Your task to perform on an android device: stop showing notifications on the lock screen Image 0: 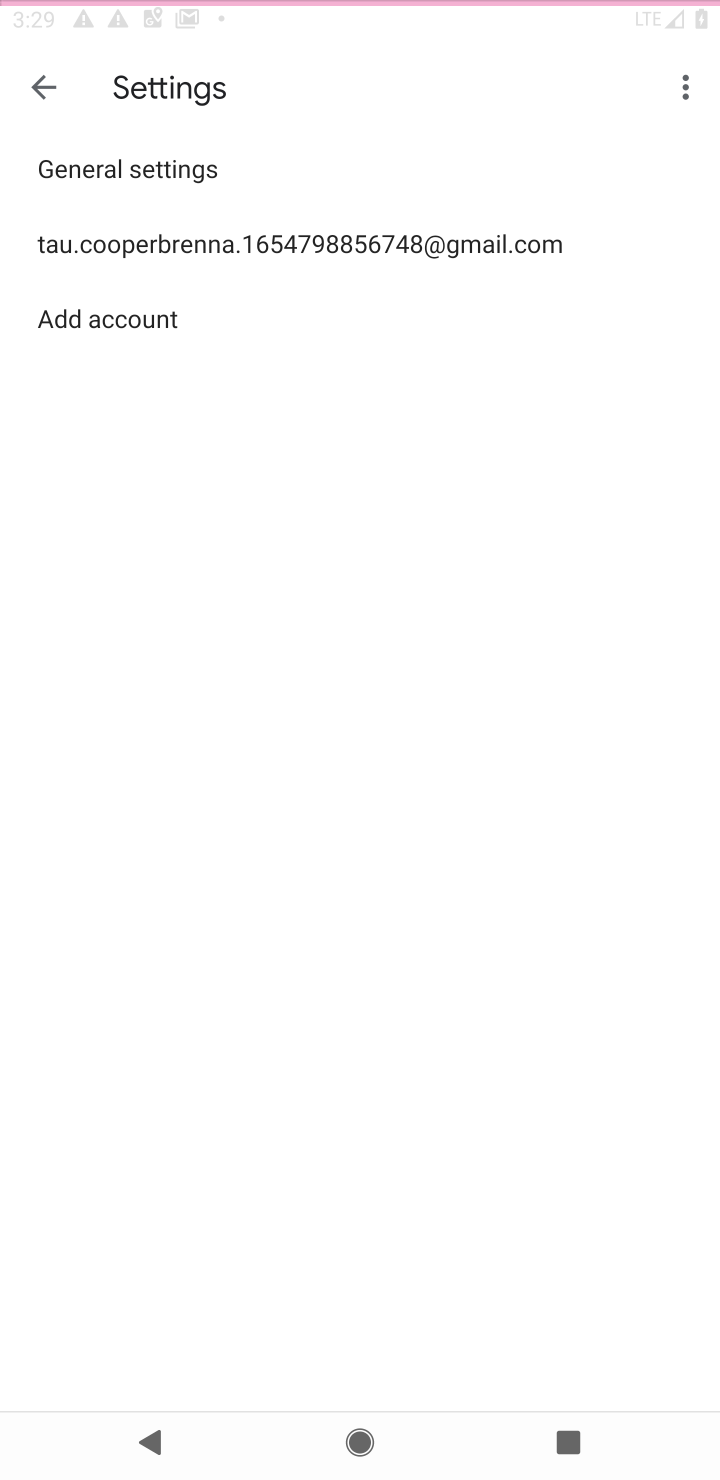
Step 0: press home button
Your task to perform on an android device: stop showing notifications on the lock screen Image 1: 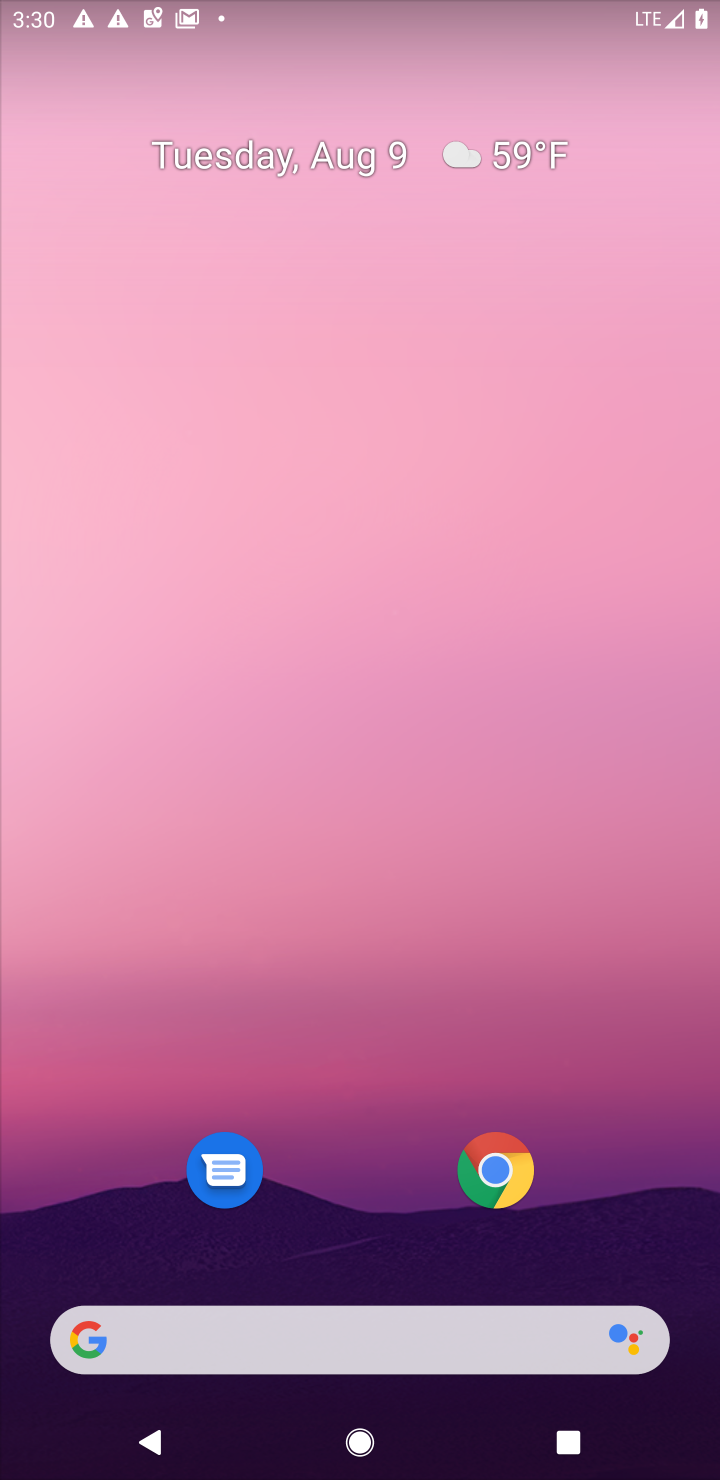
Step 1: drag from (334, 628) to (330, 64)
Your task to perform on an android device: stop showing notifications on the lock screen Image 2: 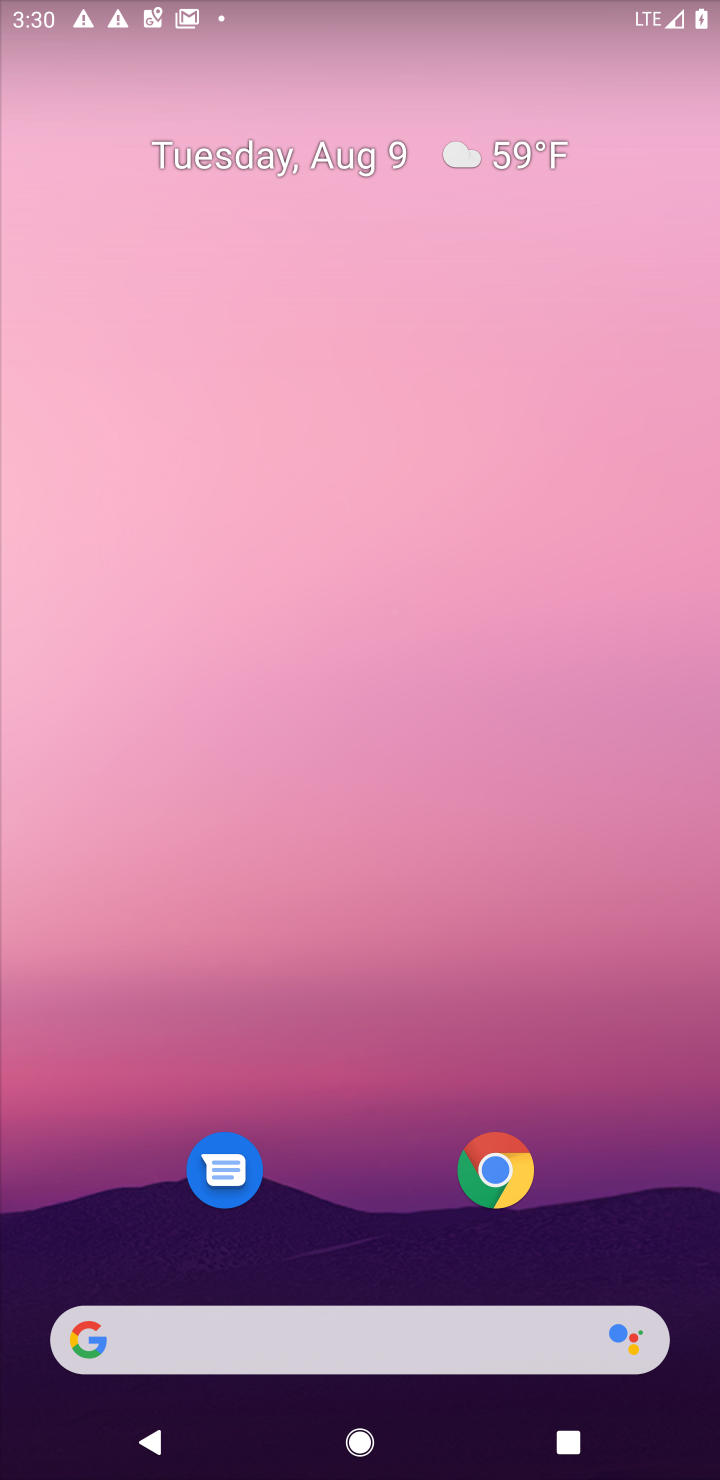
Step 2: drag from (385, 1250) to (327, 30)
Your task to perform on an android device: stop showing notifications on the lock screen Image 3: 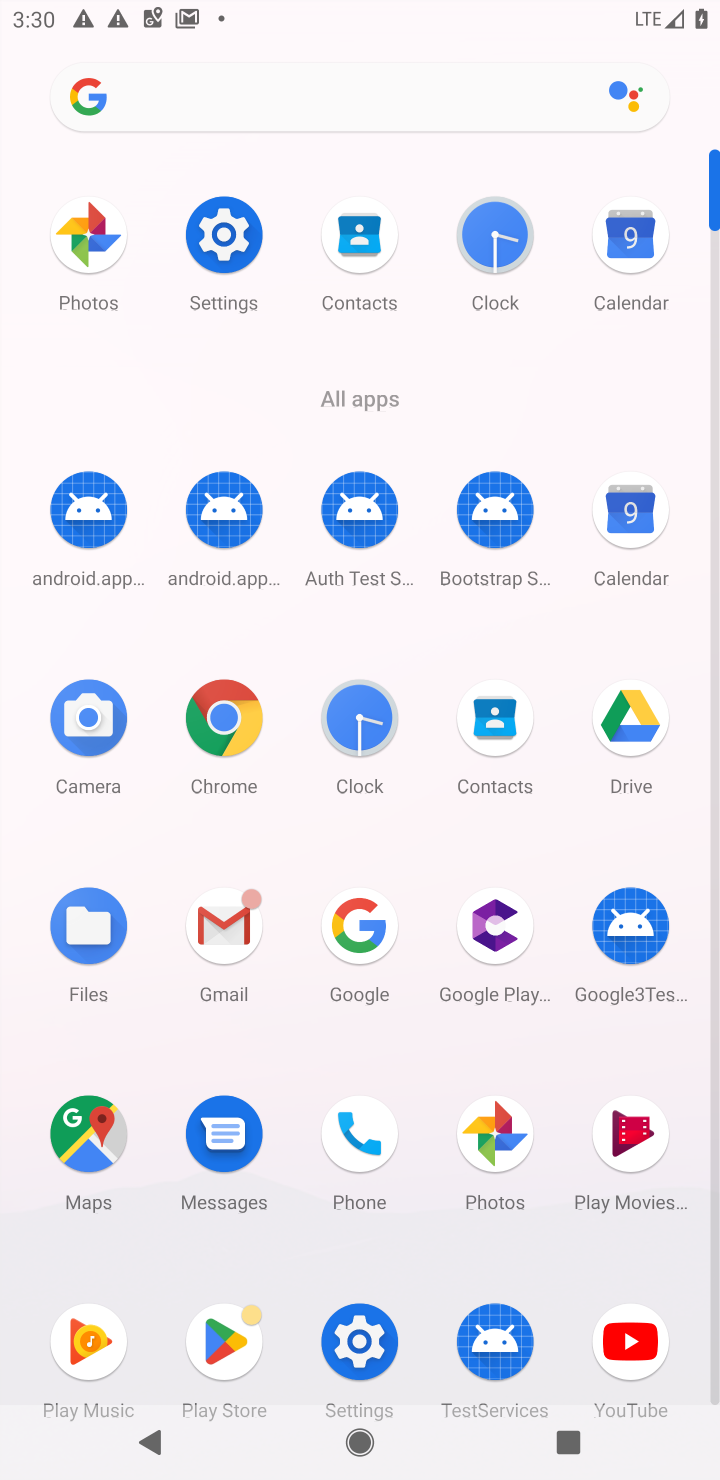
Step 3: click (224, 288)
Your task to perform on an android device: stop showing notifications on the lock screen Image 4: 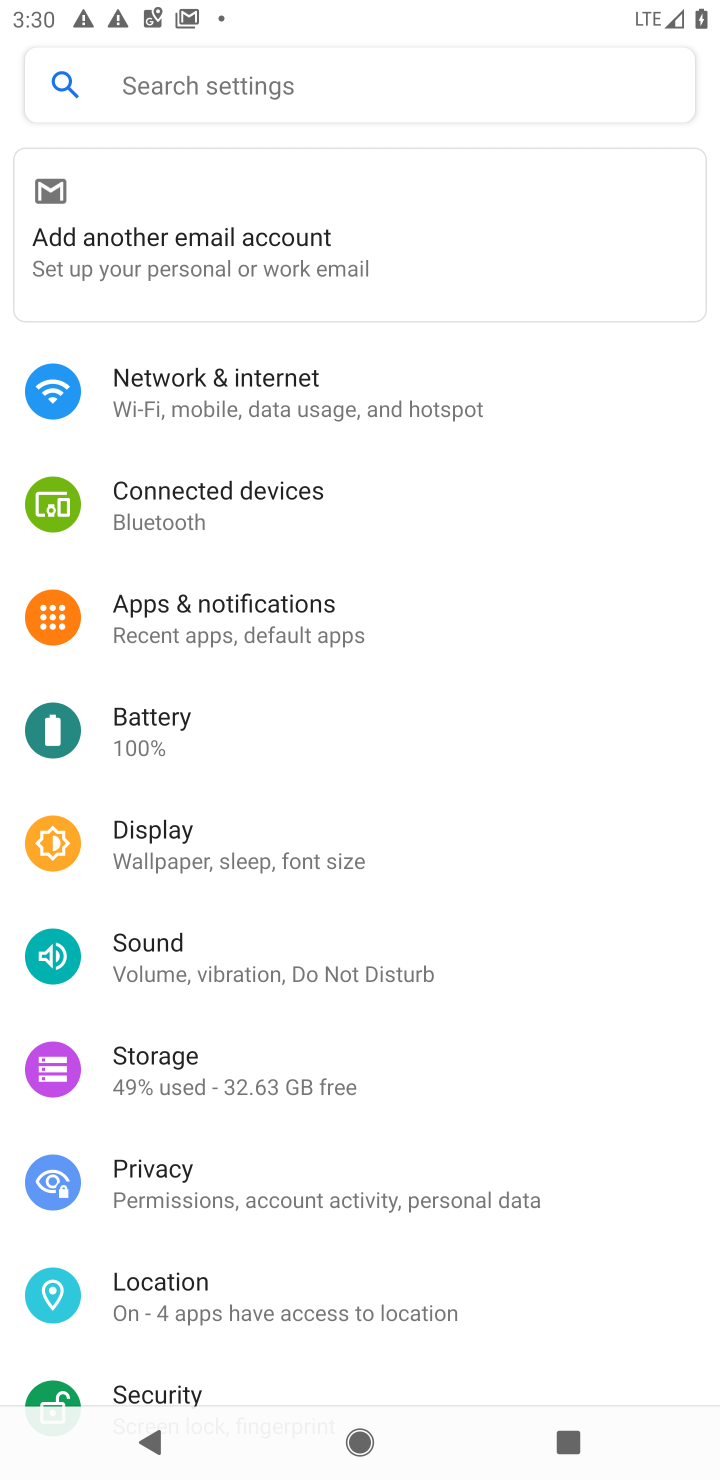
Step 4: click (229, 624)
Your task to perform on an android device: stop showing notifications on the lock screen Image 5: 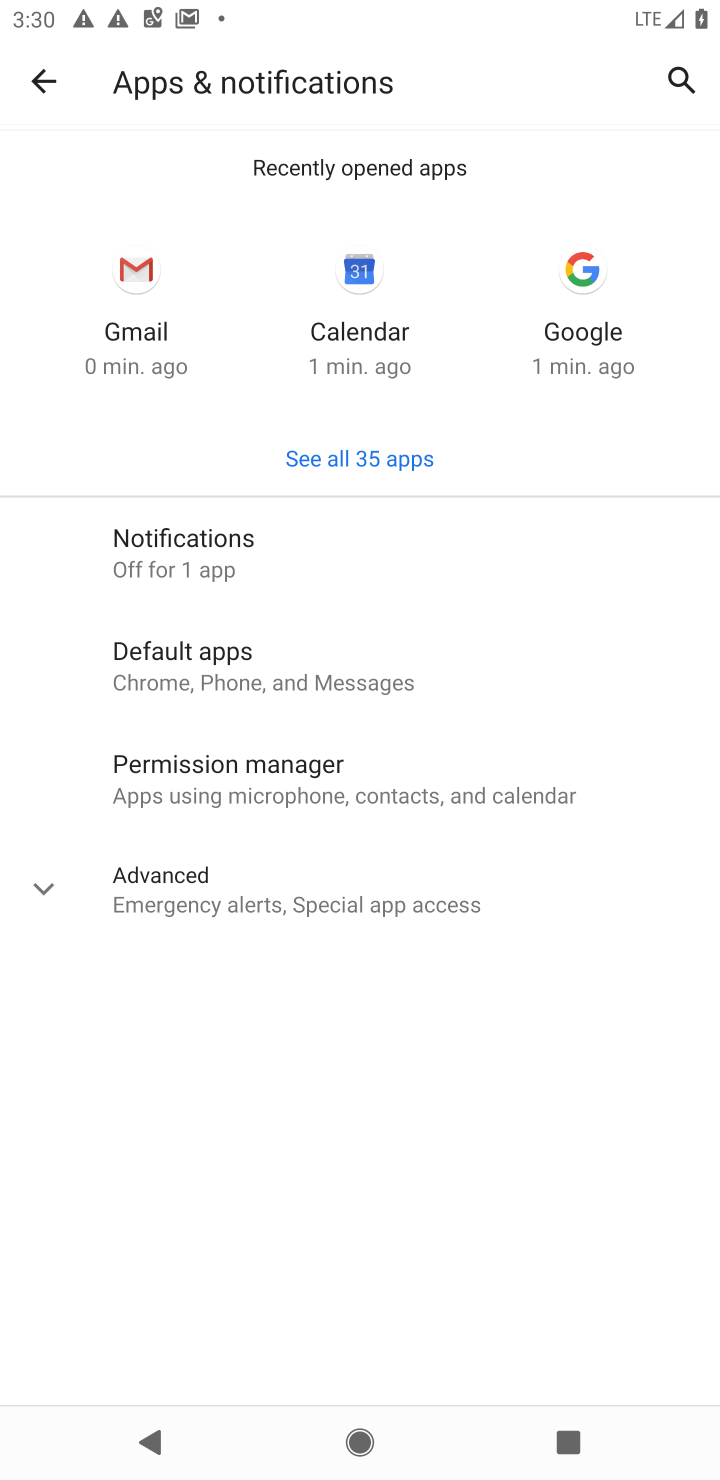
Step 5: click (167, 562)
Your task to perform on an android device: stop showing notifications on the lock screen Image 6: 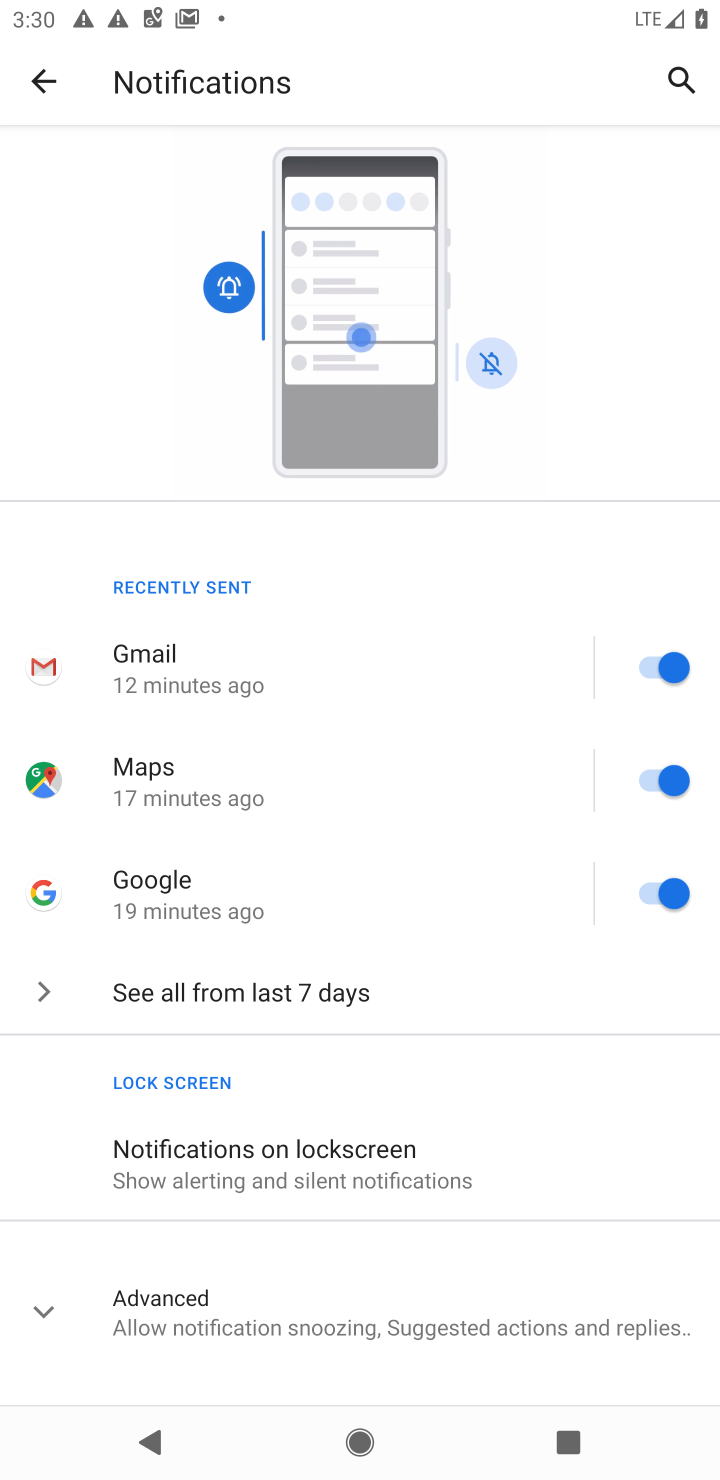
Step 6: click (302, 1166)
Your task to perform on an android device: stop showing notifications on the lock screen Image 7: 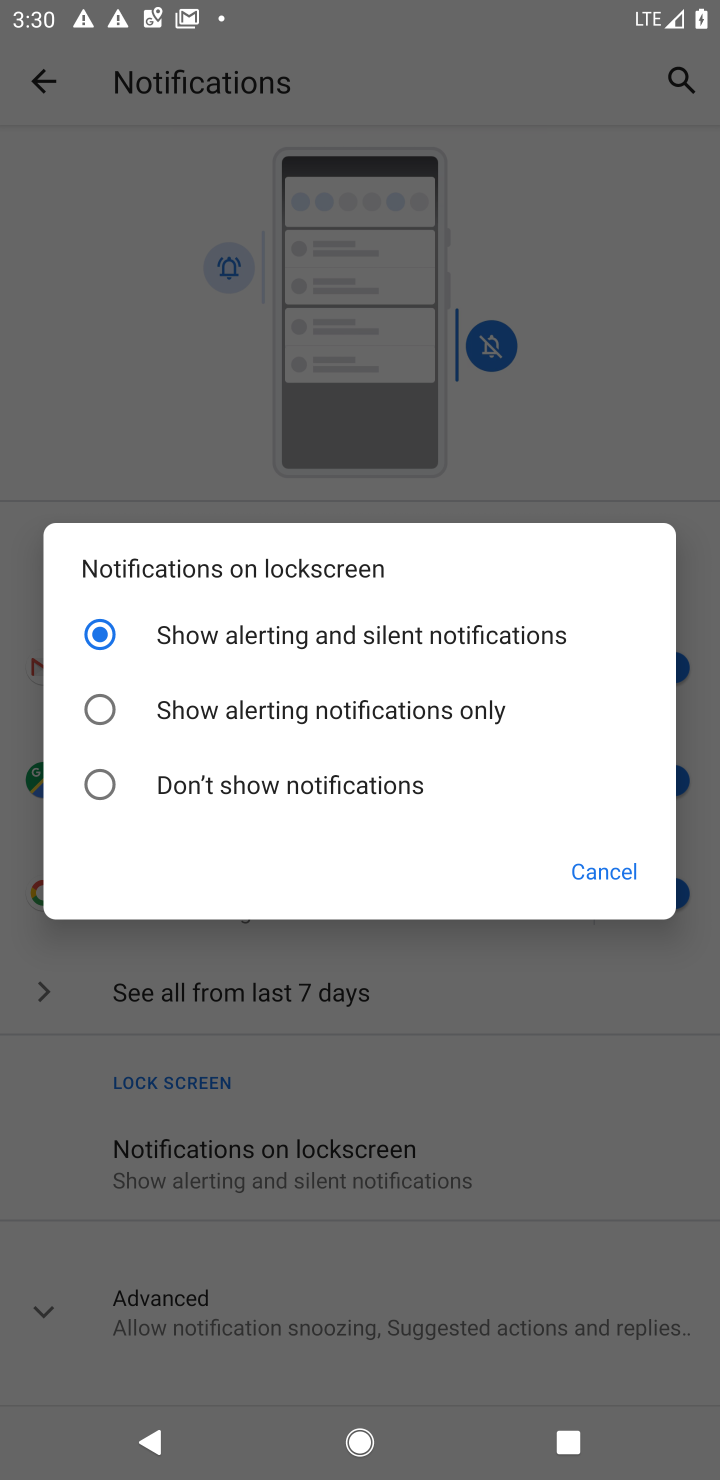
Step 7: click (107, 787)
Your task to perform on an android device: stop showing notifications on the lock screen Image 8: 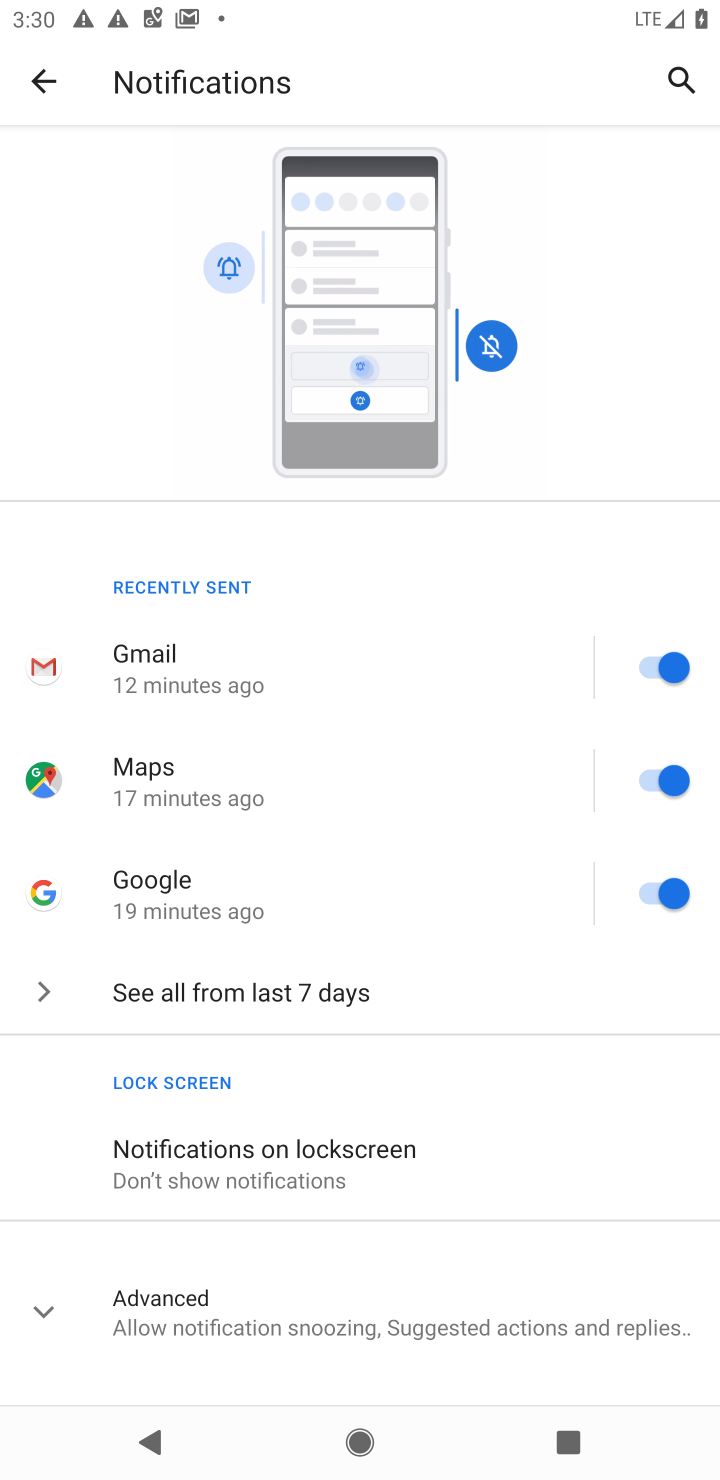
Step 8: task complete